Your task to perform on an android device: clear history in the chrome app Image 0: 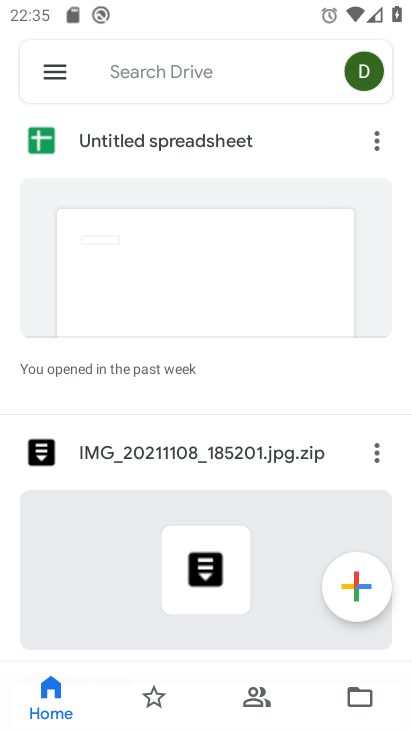
Step 0: press home button
Your task to perform on an android device: clear history in the chrome app Image 1: 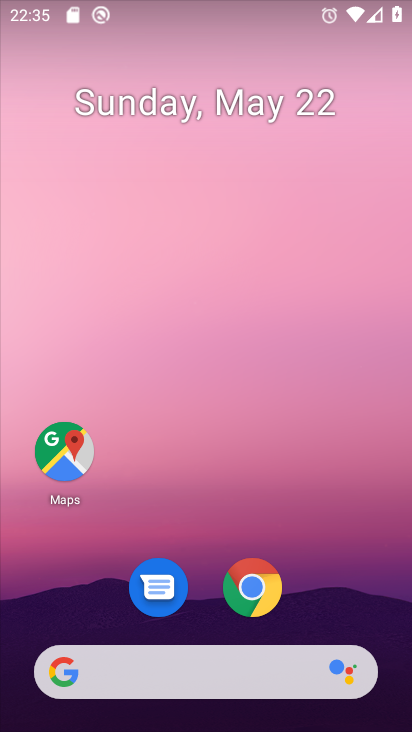
Step 1: click (262, 590)
Your task to perform on an android device: clear history in the chrome app Image 2: 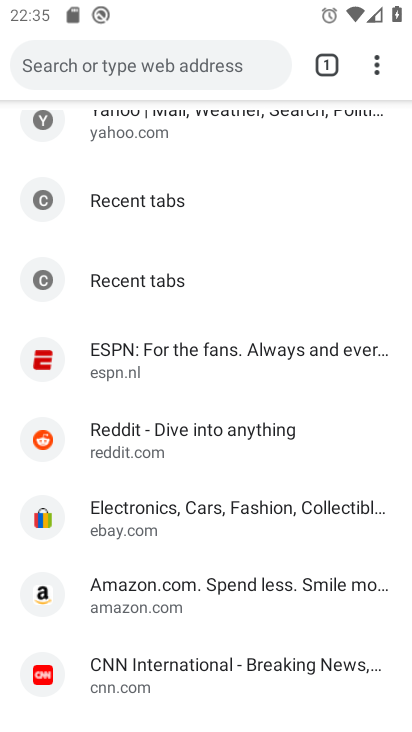
Step 2: click (377, 63)
Your task to perform on an android device: clear history in the chrome app Image 3: 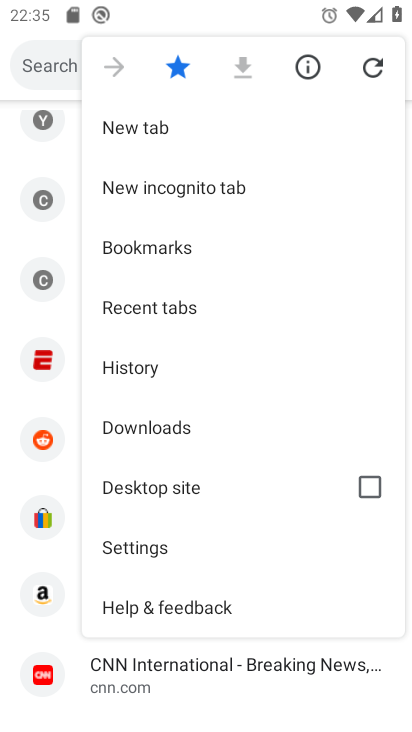
Step 3: click (143, 359)
Your task to perform on an android device: clear history in the chrome app Image 4: 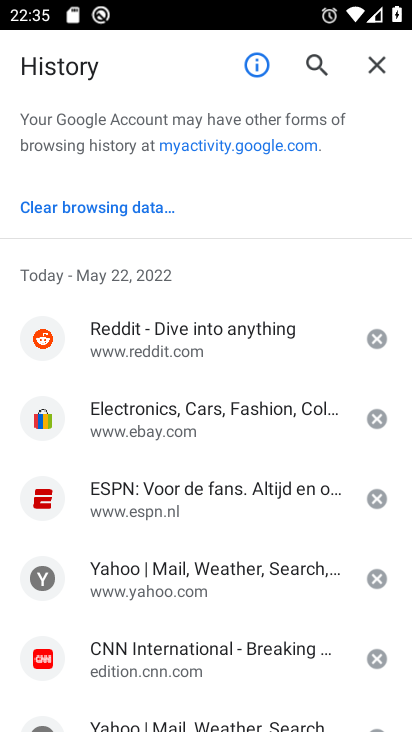
Step 4: click (141, 200)
Your task to perform on an android device: clear history in the chrome app Image 5: 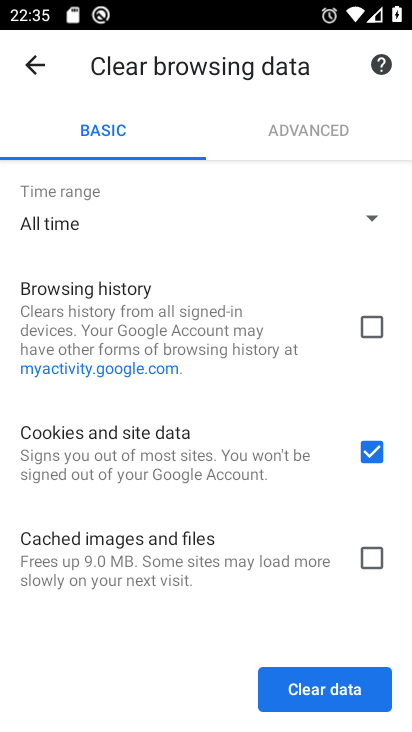
Step 5: click (370, 327)
Your task to perform on an android device: clear history in the chrome app Image 6: 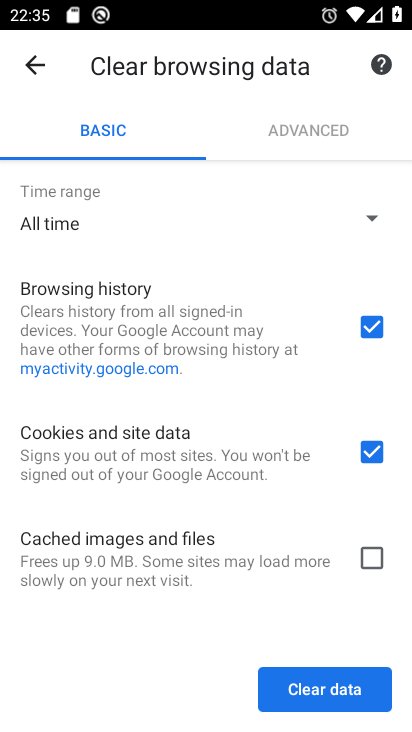
Step 6: click (371, 558)
Your task to perform on an android device: clear history in the chrome app Image 7: 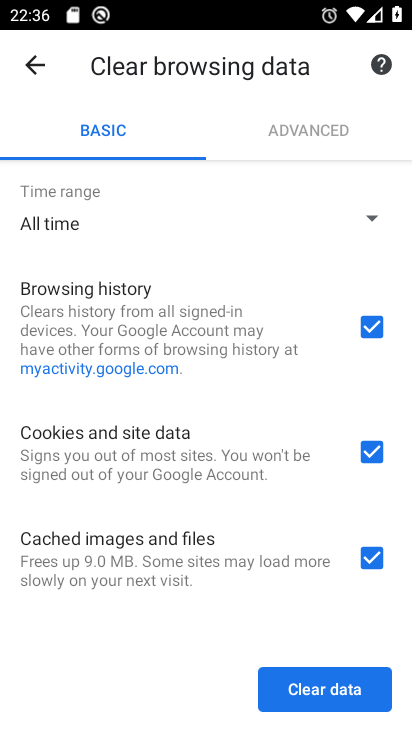
Step 7: click (378, 450)
Your task to perform on an android device: clear history in the chrome app Image 8: 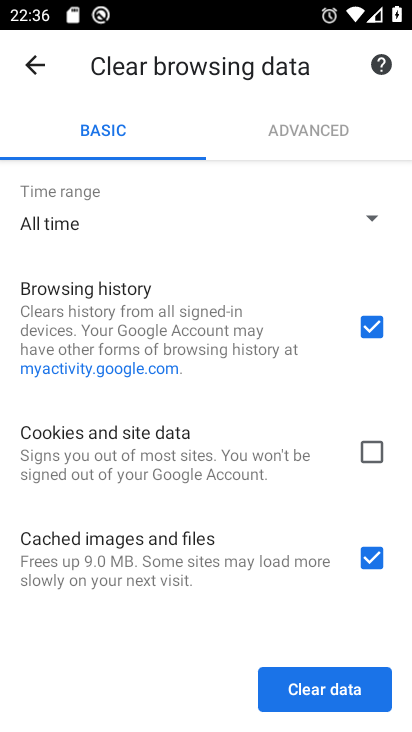
Step 8: click (363, 556)
Your task to perform on an android device: clear history in the chrome app Image 9: 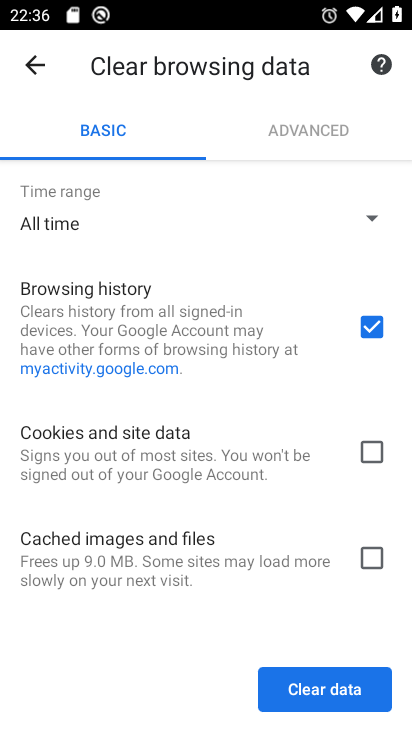
Step 9: click (332, 686)
Your task to perform on an android device: clear history in the chrome app Image 10: 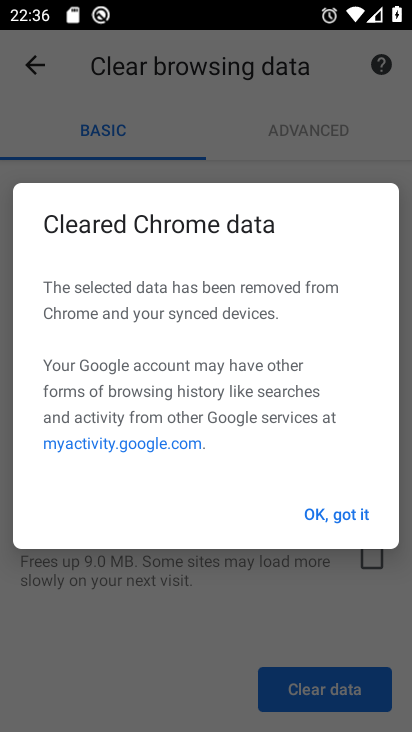
Step 10: click (354, 509)
Your task to perform on an android device: clear history in the chrome app Image 11: 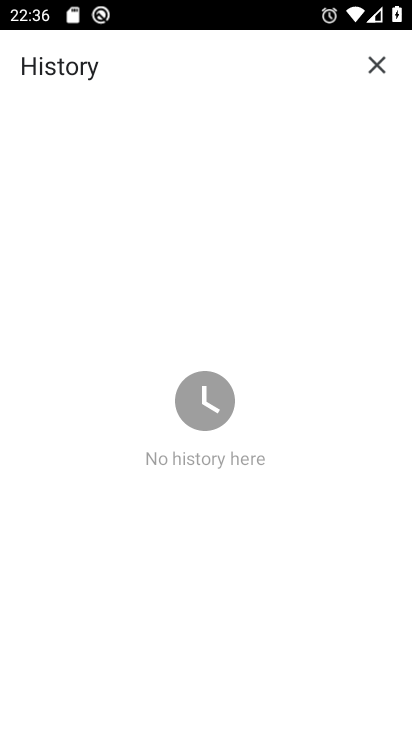
Step 11: task complete